Your task to perform on an android device: add a contact in the contacts app Image 0: 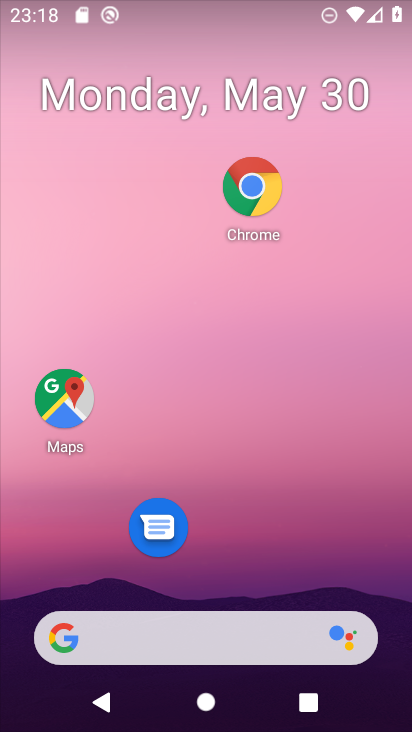
Step 0: drag from (233, 545) to (227, 245)
Your task to perform on an android device: add a contact in the contacts app Image 1: 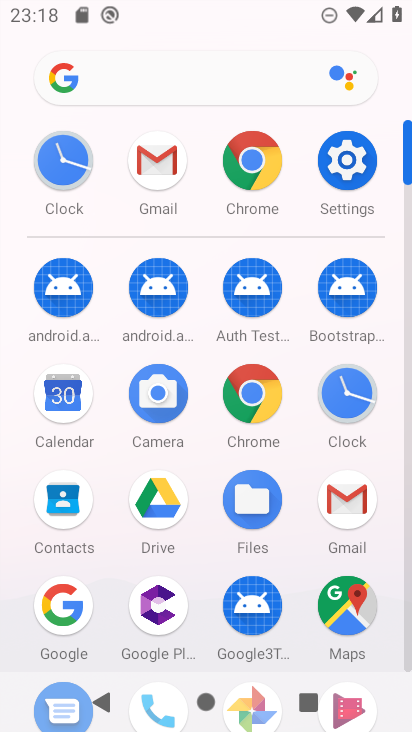
Step 1: click (154, 693)
Your task to perform on an android device: add a contact in the contacts app Image 2: 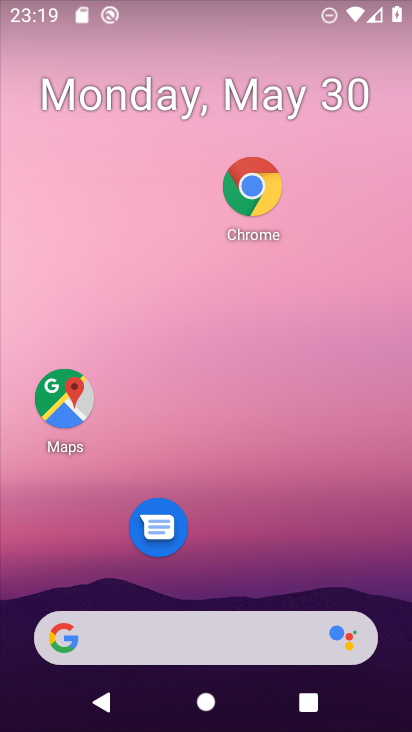
Step 2: drag from (250, 559) to (276, 215)
Your task to perform on an android device: add a contact in the contacts app Image 3: 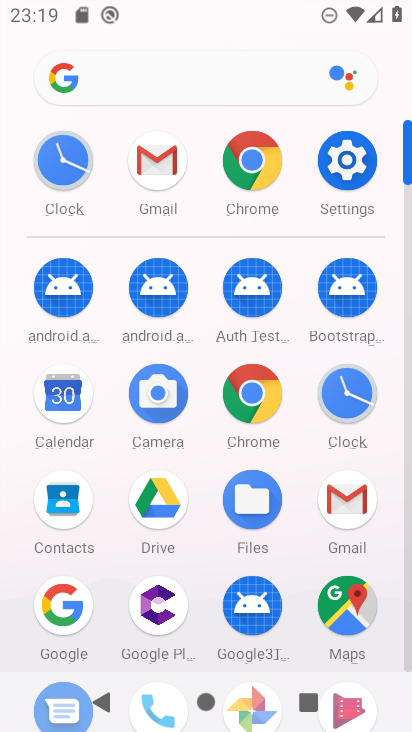
Step 3: click (158, 686)
Your task to perform on an android device: add a contact in the contacts app Image 4: 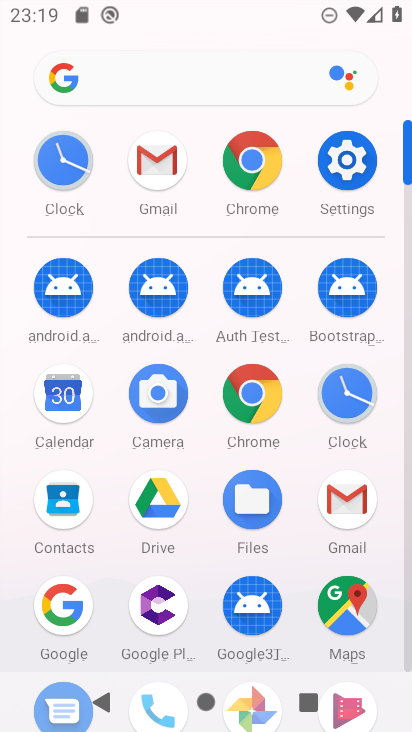
Step 4: drag from (191, 622) to (209, 408)
Your task to perform on an android device: add a contact in the contacts app Image 5: 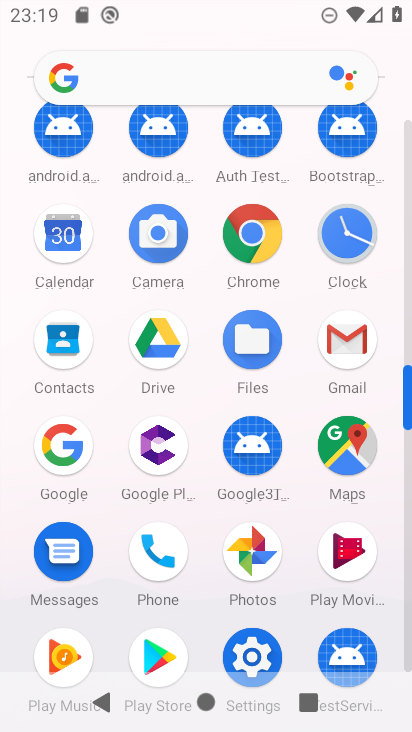
Step 5: click (153, 549)
Your task to perform on an android device: add a contact in the contacts app Image 6: 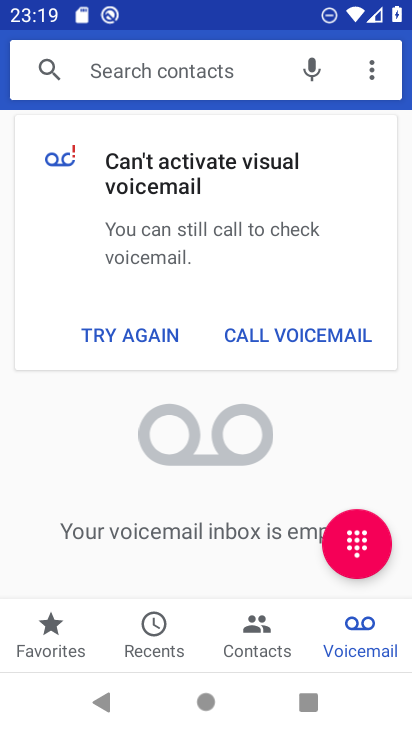
Step 6: click (160, 637)
Your task to perform on an android device: add a contact in the contacts app Image 7: 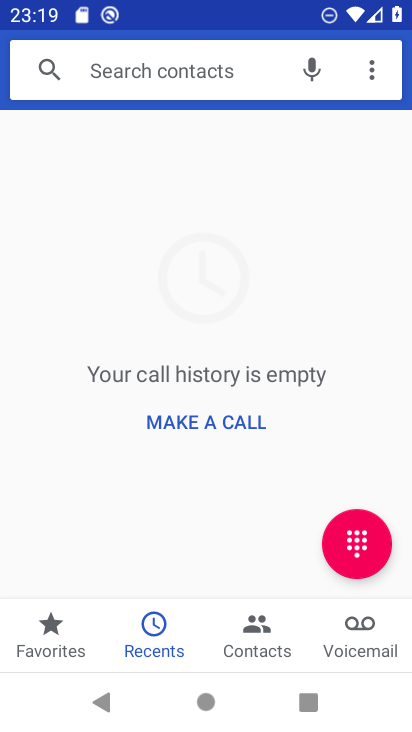
Step 7: click (50, 636)
Your task to perform on an android device: add a contact in the contacts app Image 8: 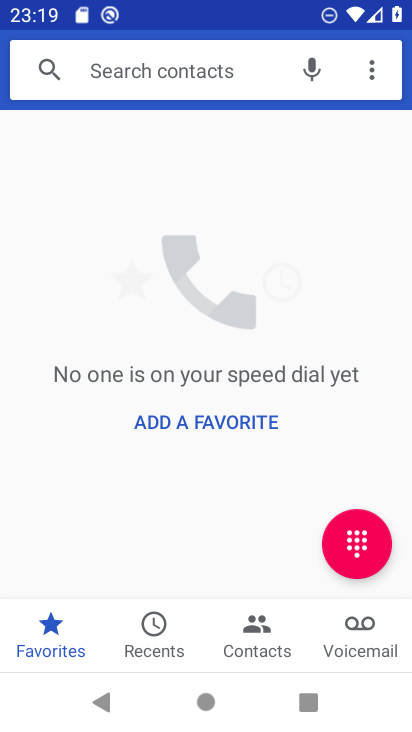
Step 8: click (199, 420)
Your task to perform on an android device: add a contact in the contacts app Image 9: 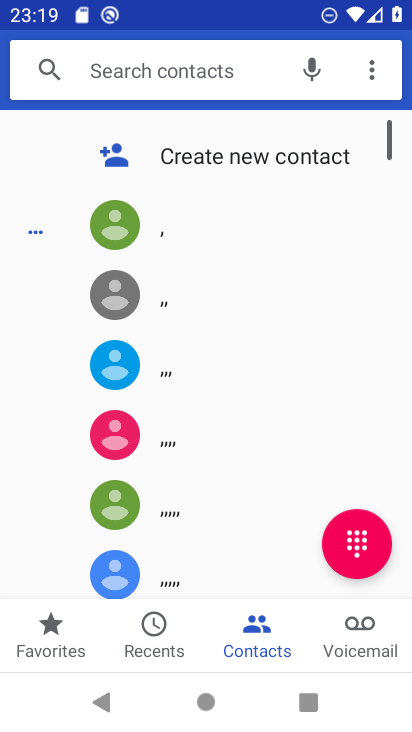
Step 9: click (177, 137)
Your task to perform on an android device: add a contact in the contacts app Image 10: 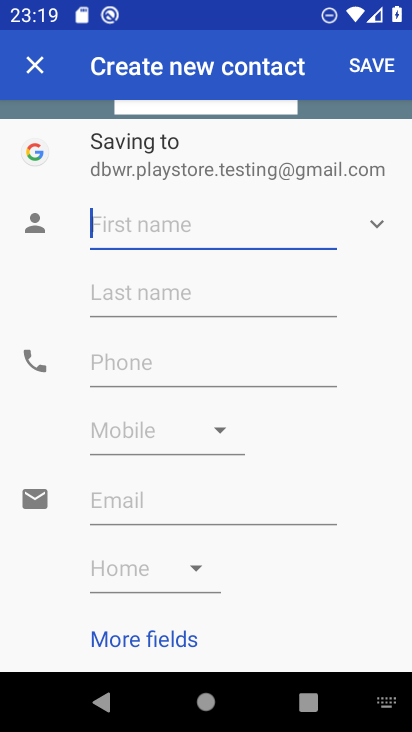
Step 10: type "hghhhfdfdf"
Your task to perform on an android device: add a contact in the contacts app Image 11: 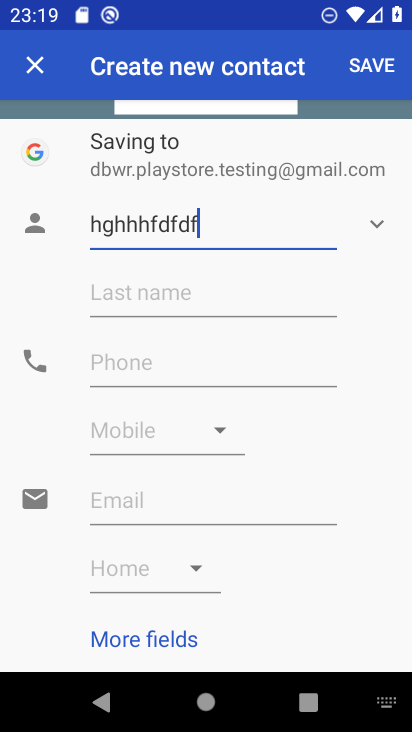
Step 11: click (170, 370)
Your task to perform on an android device: add a contact in the contacts app Image 12: 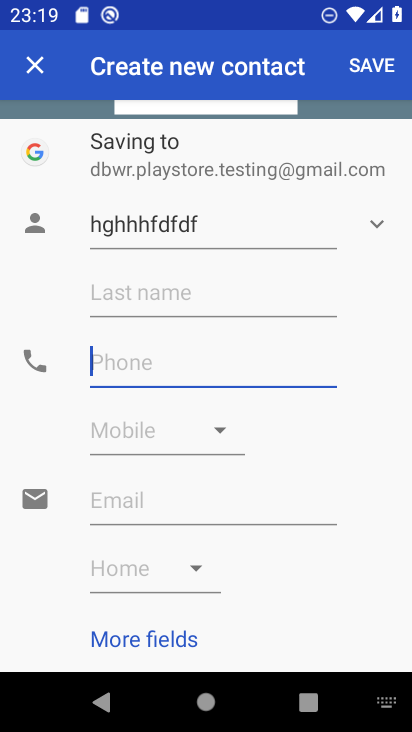
Step 12: type "56789"
Your task to perform on an android device: add a contact in the contacts app Image 13: 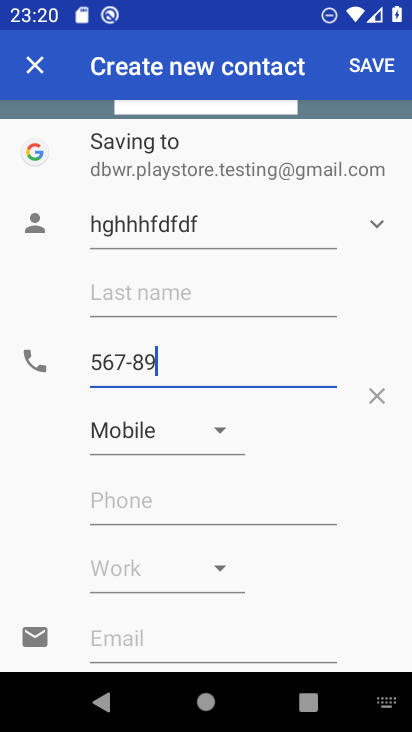
Step 13: click (356, 69)
Your task to perform on an android device: add a contact in the contacts app Image 14: 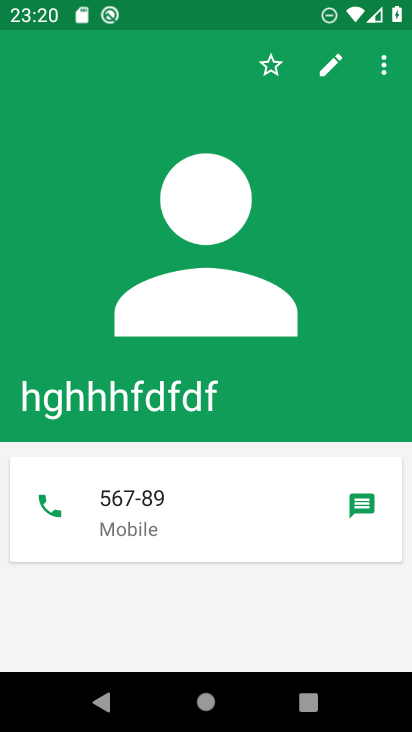
Step 14: task complete